Your task to perform on an android device: read, delete, or share a saved page in the chrome app Image 0: 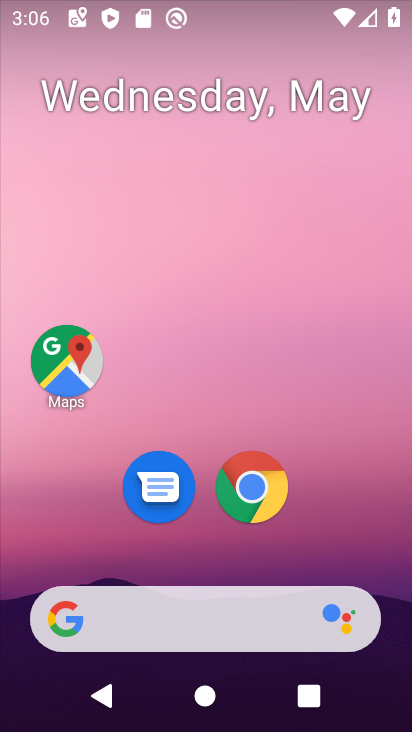
Step 0: drag from (332, 516) to (252, 15)
Your task to perform on an android device: read, delete, or share a saved page in the chrome app Image 1: 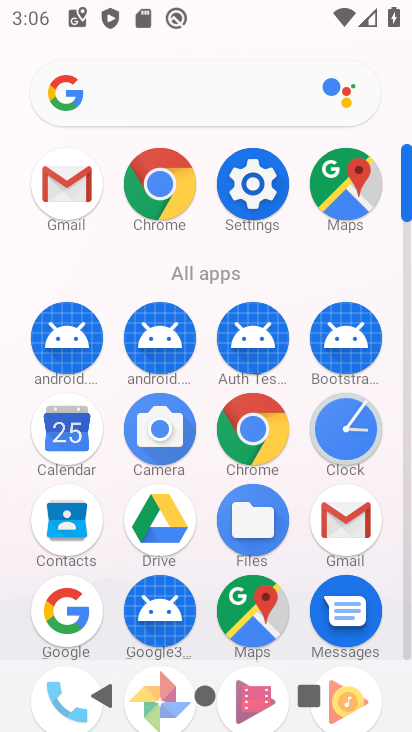
Step 1: drag from (10, 588) to (25, 275)
Your task to perform on an android device: read, delete, or share a saved page in the chrome app Image 2: 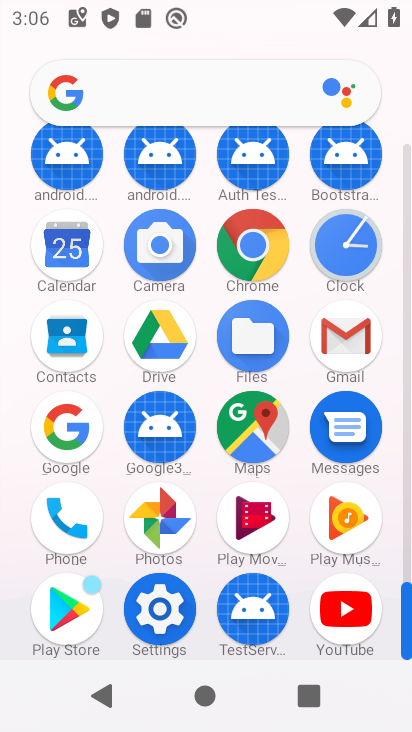
Step 2: click (248, 242)
Your task to perform on an android device: read, delete, or share a saved page in the chrome app Image 3: 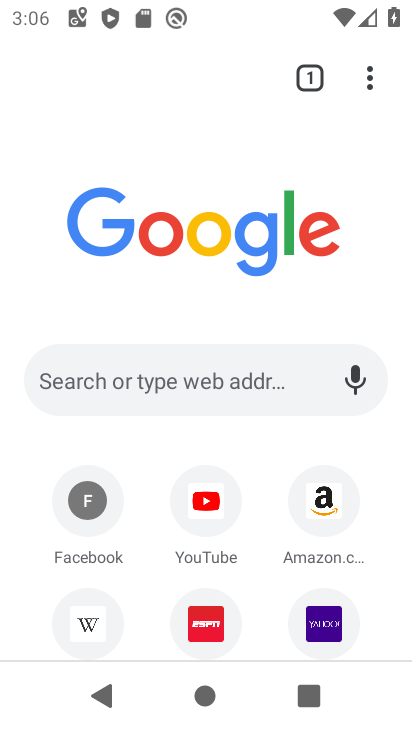
Step 3: task complete